Your task to perform on an android device: Is it going to rain tomorrow? Image 0: 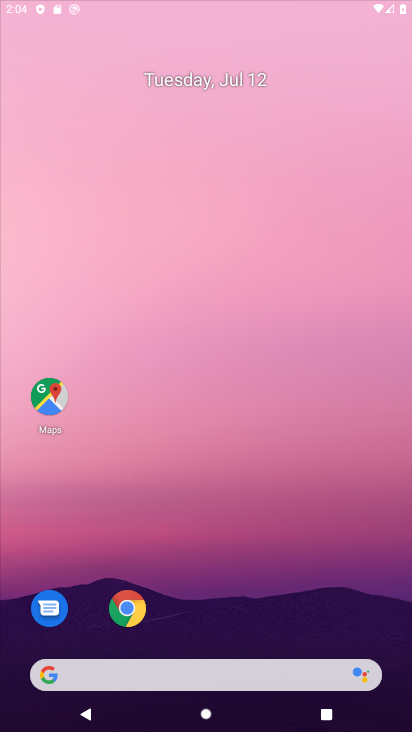
Step 0: press home button
Your task to perform on an android device: Is it going to rain tomorrow? Image 1: 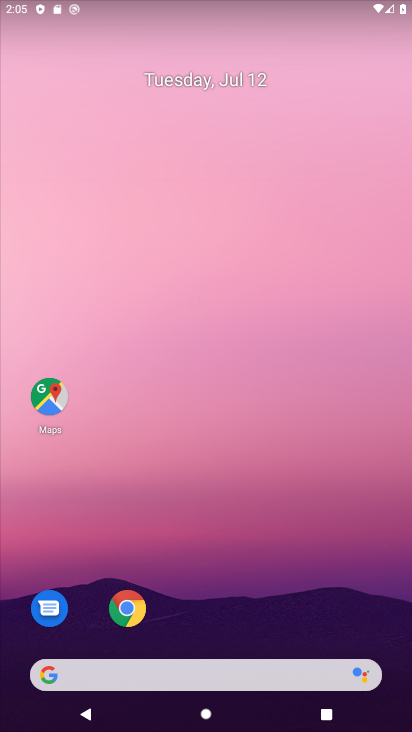
Step 1: click (195, 675)
Your task to perform on an android device: Is it going to rain tomorrow? Image 2: 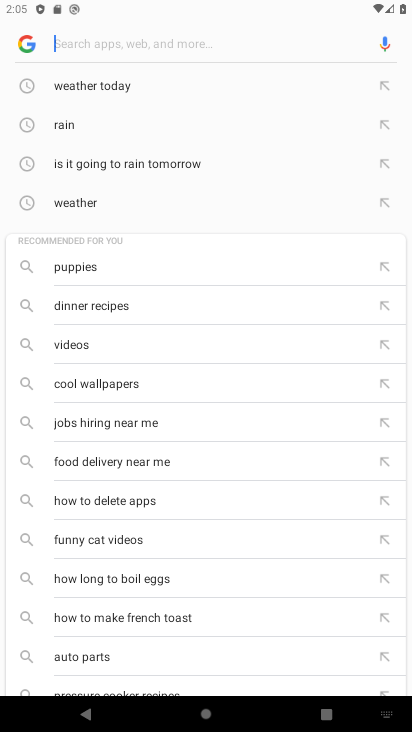
Step 2: click (178, 162)
Your task to perform on an android device: Is it going to rain tomorrow? Image 3: 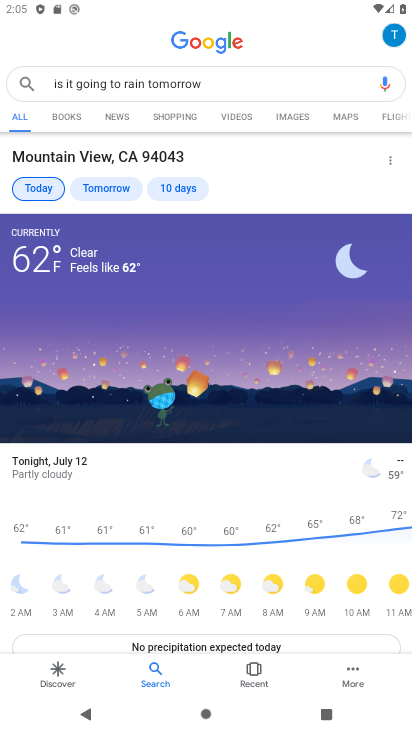
Step 3: click (98, 188)
Your task to perform on an android device: Is it going to rain tomorrow? Image 4: 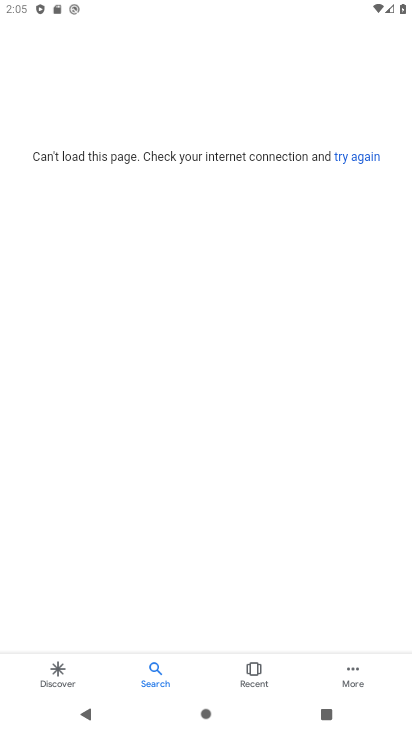
Step 4: click (350, 158)
Your task to perform on an android device: Is it going to rain tomorrow? Image 5: 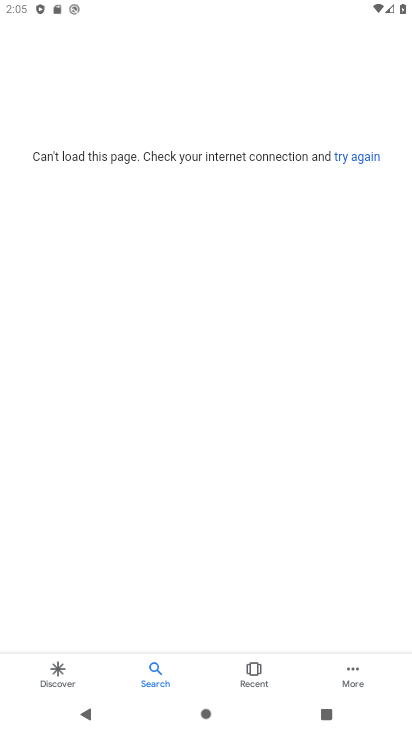
Step 5: click (350, 159)
Your task to perform on an android device: Is it going to rain tomorrow? Image 6: 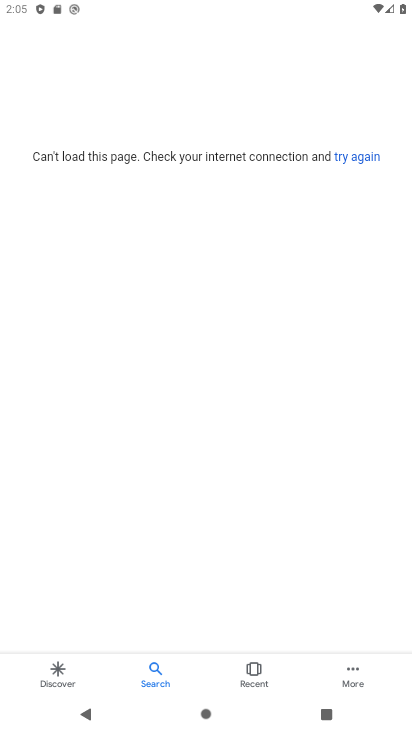
Step 6: click (361, 150)
Your task to perform on an android device: Is it going to rain tomorrow? Image 7: 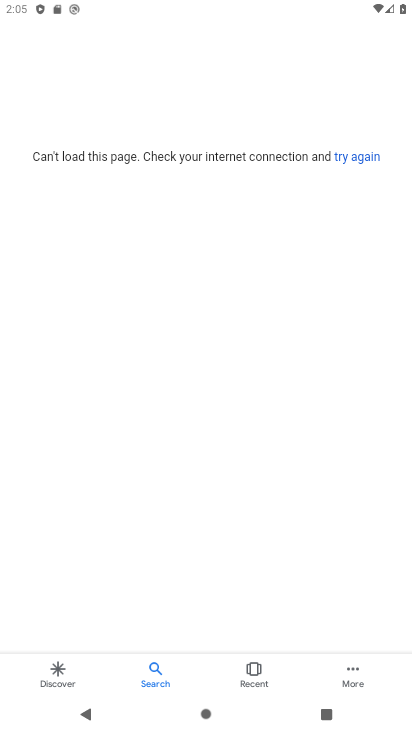
Step 7: click (358, 157)
Your task to perform on an android device: Is it going to rain tomorrow? Image 8: 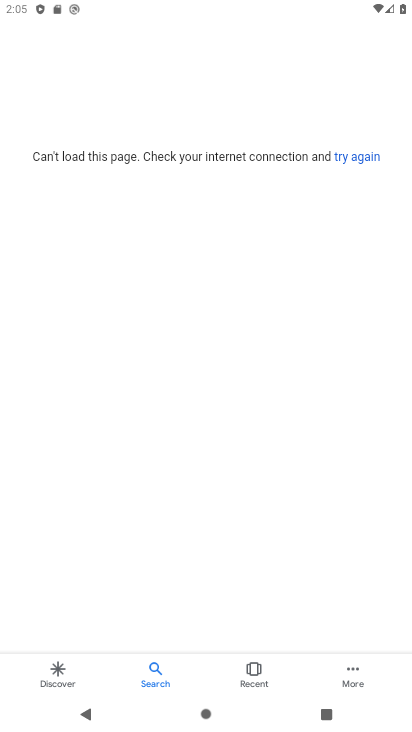
Step 8: task complete